Your task to perform on an android device: Search for vegetarian restaurants on Maps Image 0: 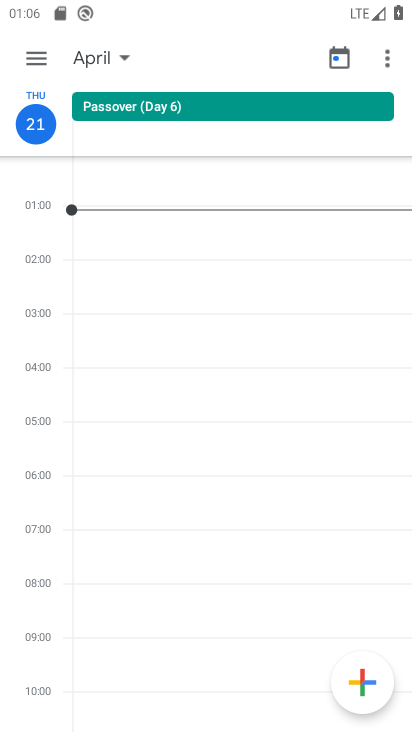
Step 0: press home button
Your task to perform on an android device: Search for vegetarian restaurants on Maps Image 1: 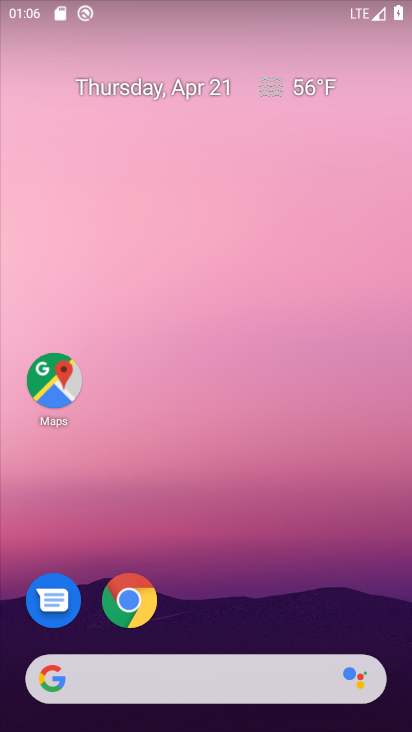
Step 1: click (49, 380)
Your task to perform on an android device: Search for vegetarian restaurants on Maps Image 2: 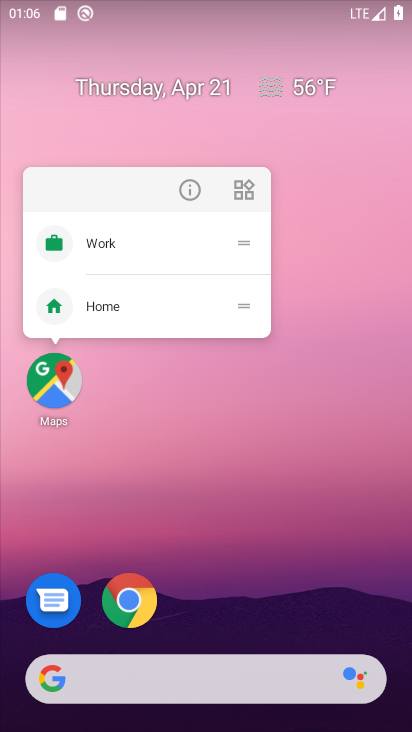
Step 2: click (49, 380)
Your task to perform on an android device: Search for vegetarian restaurants on Maps Image 3: 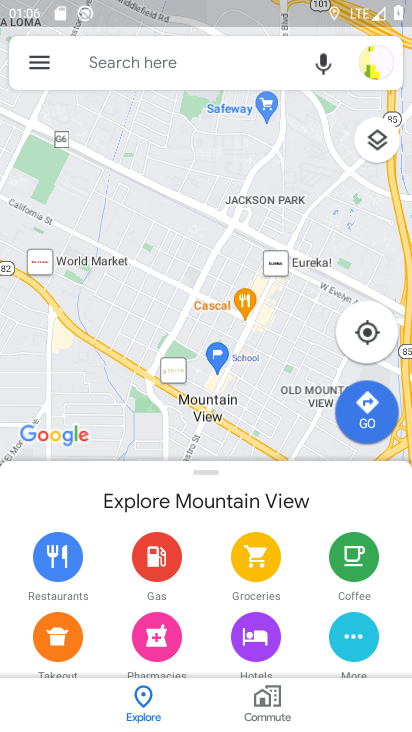
Step 3: click (159, 56)
Your task to perform on an android device: Search for vegetarian restaurants on Maps Image 4: 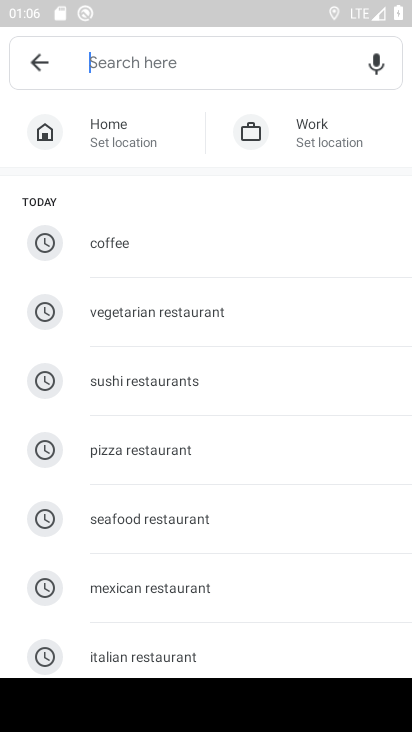
Step 4: click (200, 307)
Your task to perform on an android device: Search for vegetarian restaurants on Maps Image 5: 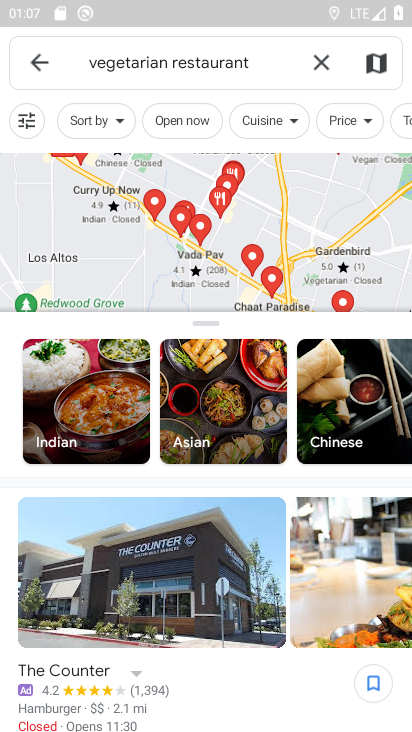
Step 5: task complete